Your task to perform on an android device: turn smart compose on in the gmail app Image 0: 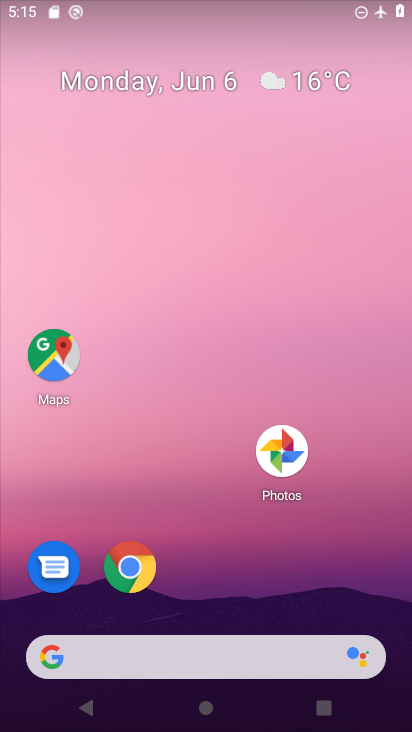
Step 0: drag from (283, 34) to (152, 52)
Your task to perform on an android device: turn smart compose on in the gmail app Image 1: 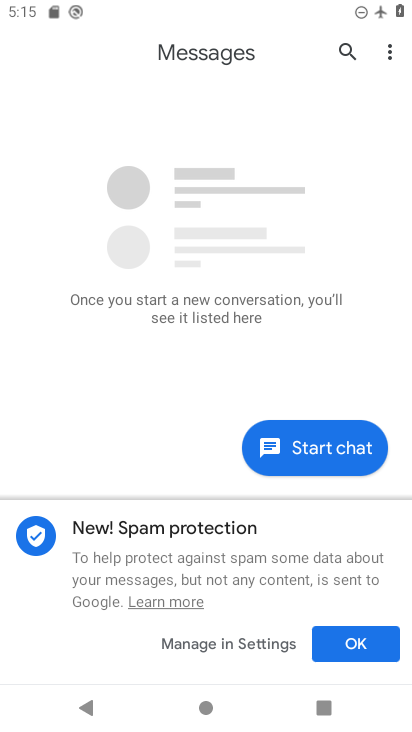
Step 1: drag from (235, 629) to (303, 196)
Your task to perform on an android device: turn smart compose on in the gmail app Image 2: 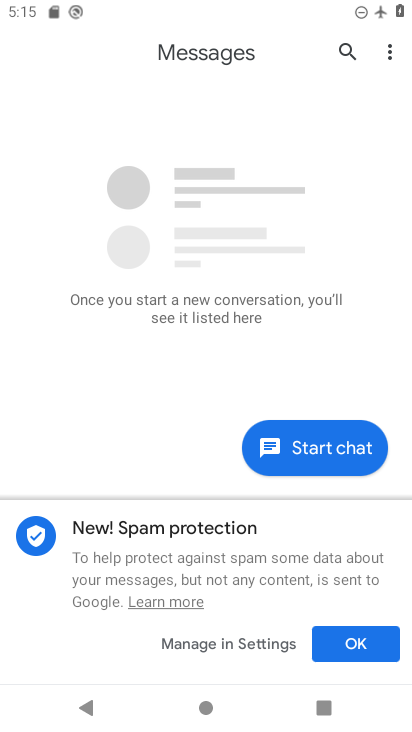
Step 2: press back button
Your task to perform on an android device: turn smart compose on in the gmail app Image 3: 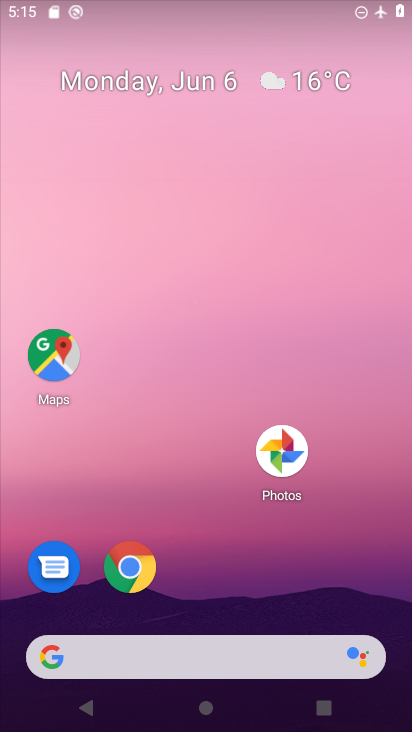
Step 3: drag from (289, 689) to (244, 229)
Your task to perform on an android device: turn smart compose on in the gmail app Image 4: 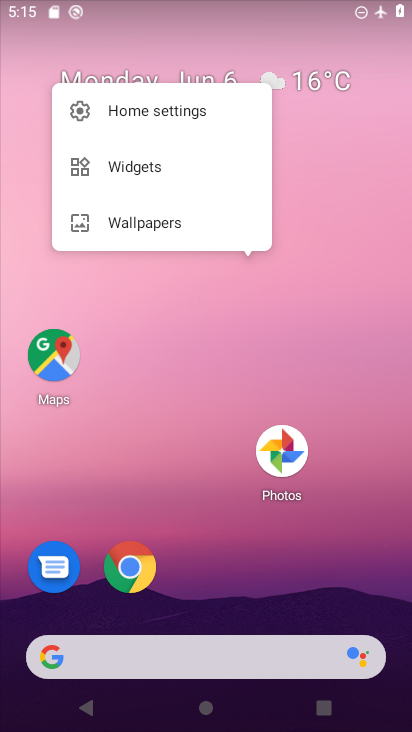
Step 4: drag from (261, 686) to (199, 131)
Your task to perform on an android device: turn smart compose on in the gmail app Image 5: 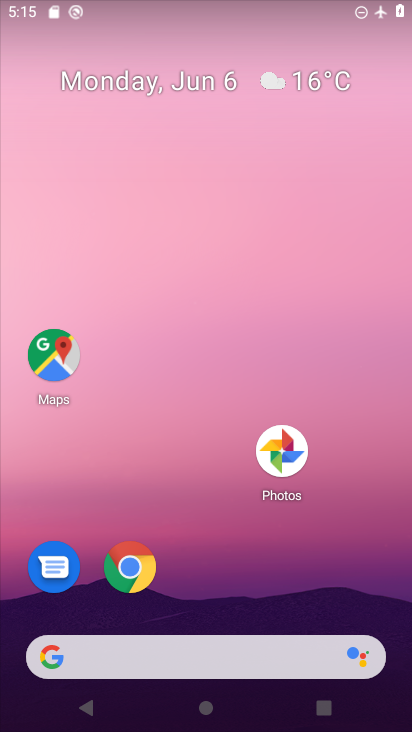
Step 5: drag from (235, 676) to (229, 237)
Your task to perform on an android device: turn smart compose on in the gmail app Image 6: 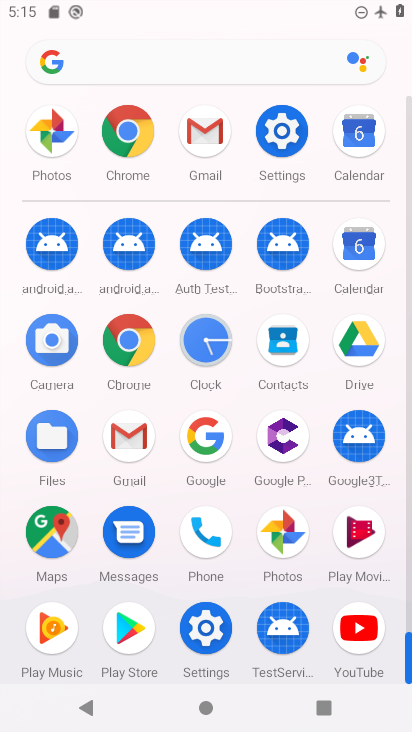
Step 6: click (128, 449)
Your task to perform on an android device: turn smart compose on in the gmail app Image 7: 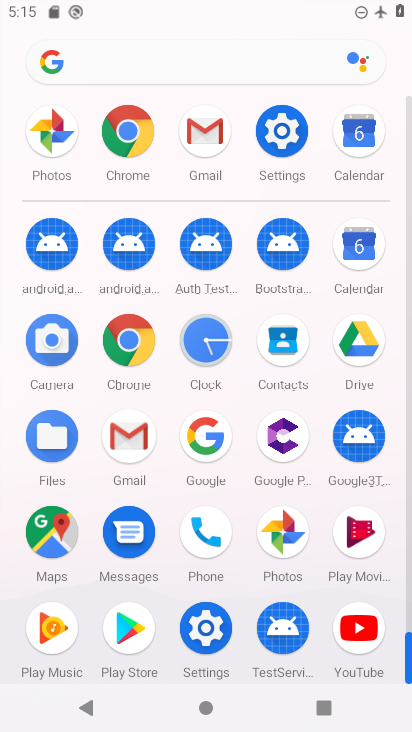
Step 7: click (128, 445)
Your task to perform on an android device: turn smart compose on in the gmail app Image 8: 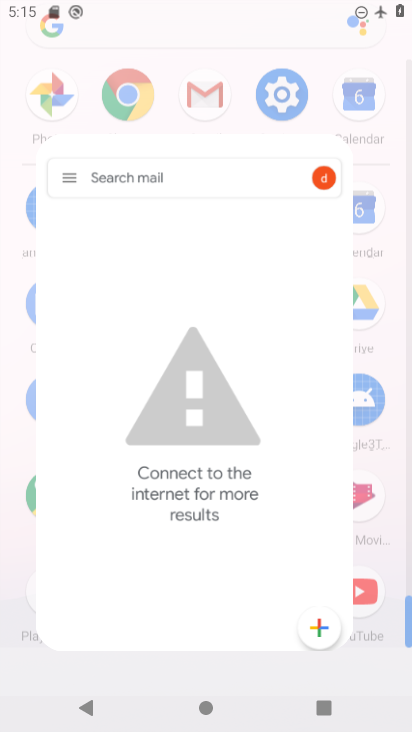
Step 8: click (128, 445)
Your task to perform on an android device: turn smart compose on in the gmail app Image 9: 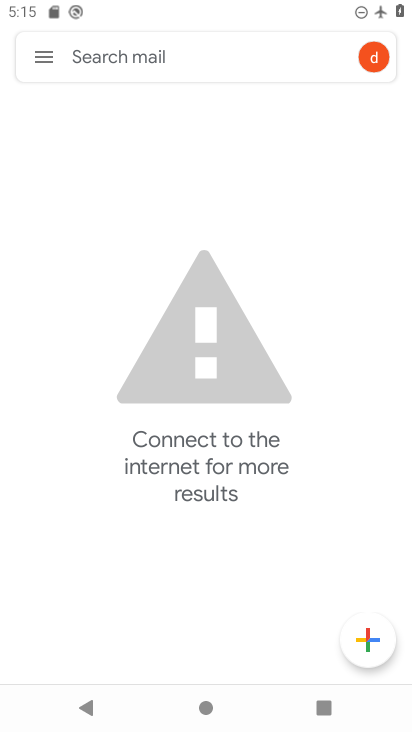
Step 9: click (58, 55)
Your task to perform on an android device: turn smart compose on in the gmail app Image 10: 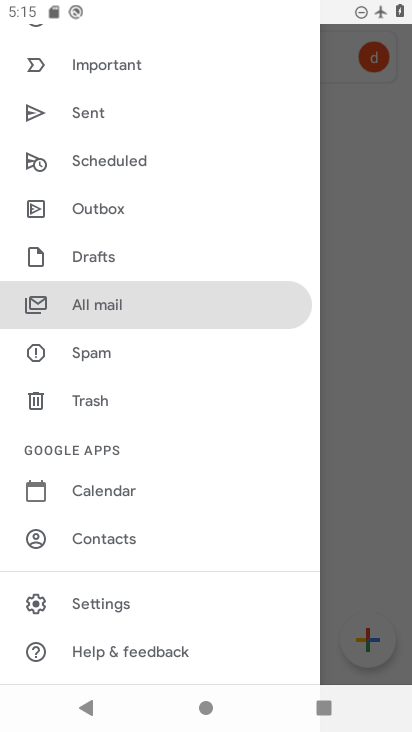
Step 10: click (93, 600)
Your task to perform on an android device: turn smart compose on in the gmail app Image 11: 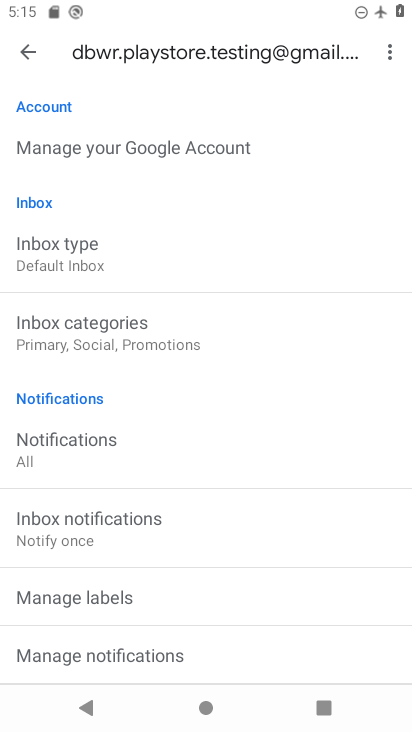
Step 11: task complete